Your task to perform on an android device: open device folders in google photos Image 0: 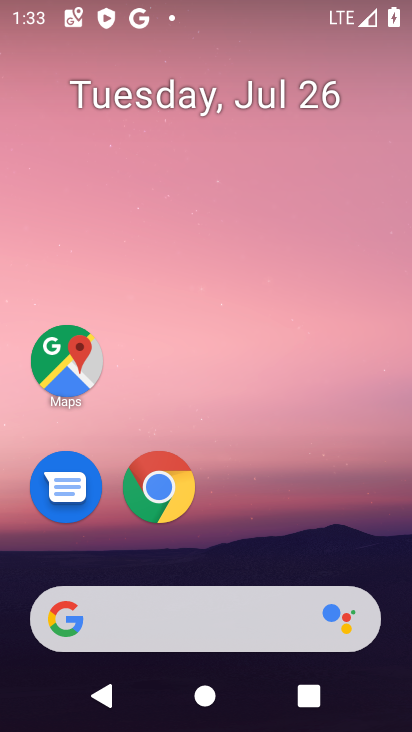
Step 0: drag from (180, 603) to (162, 196)
Your task to perform on an android device: open device folders in google photos Image 1: 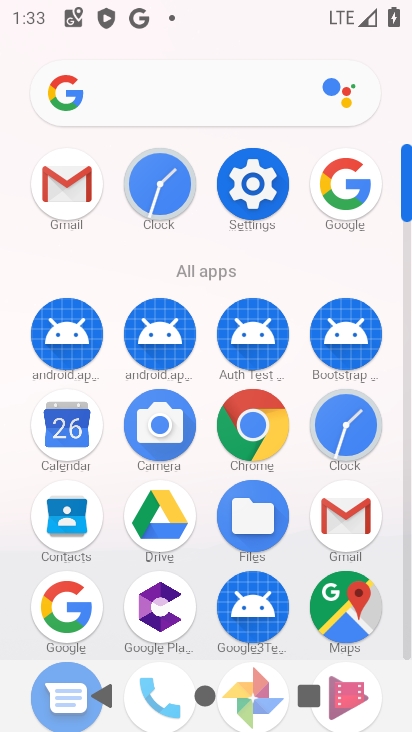
Step 1: drag from (218, 525) to (226, 211)
Your task to perform on an android device: open device folders in google photos Image 2: 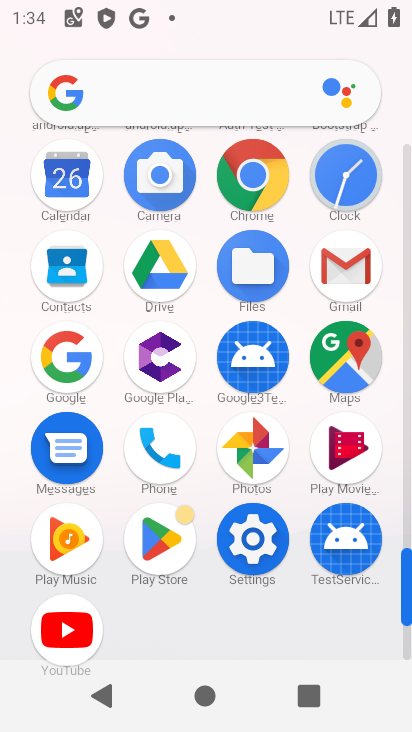
Step 2: click (245, 473)
Your task to perform on an android device: open device folders in google photos Image 3: 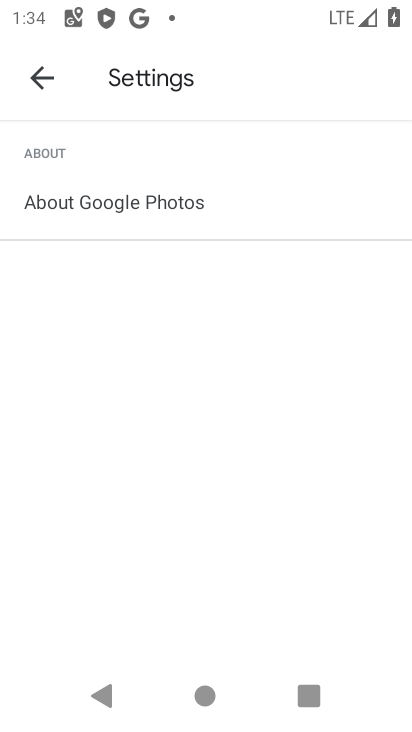
Step 3: click (51, 79)
Your task to perform on an android device: open device folders in google photos Image 4: 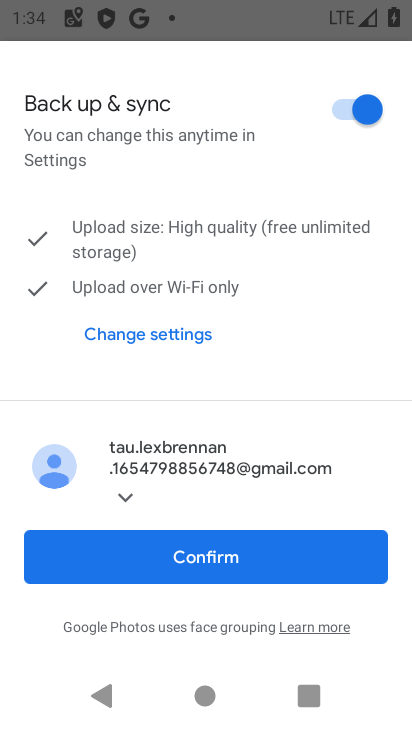
Step 4: click (284, 573)
Your task to perform on an android device: open device folders in google photos Image 5: 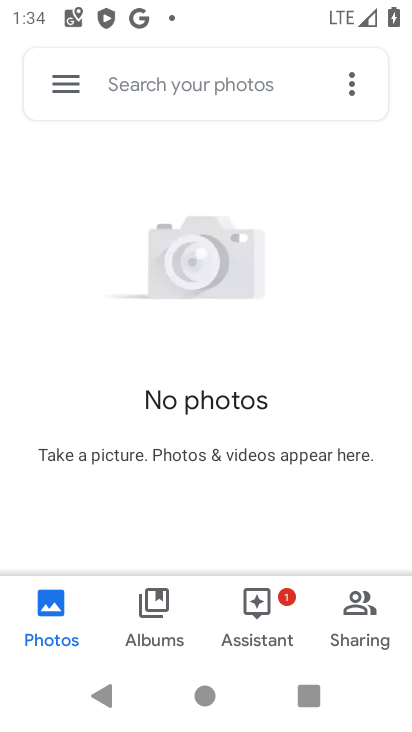
Step 5: click (79, 80)
Your task to perform on an android device: open device folders in google photos Image 6: 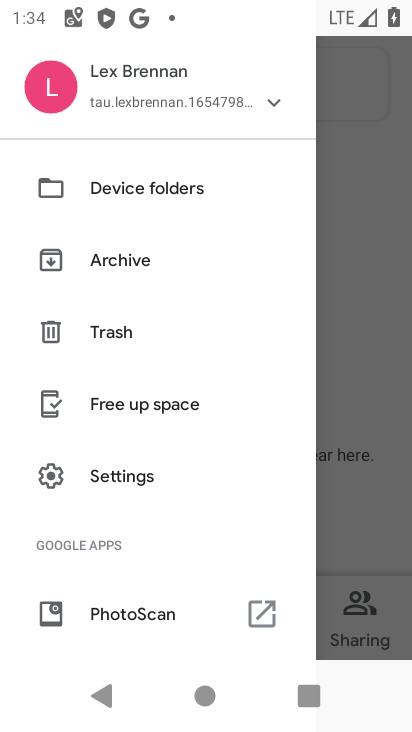
Step 6: click (129, 185)
Your task to perform on an android device: open device folders in google photos Image 7: 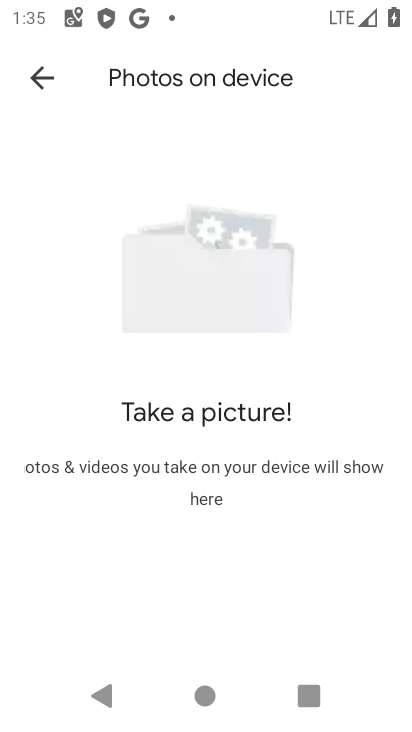
Step 7: click (31, 81)
Your task to perform on an android device: open device folders in google photos Image 8: 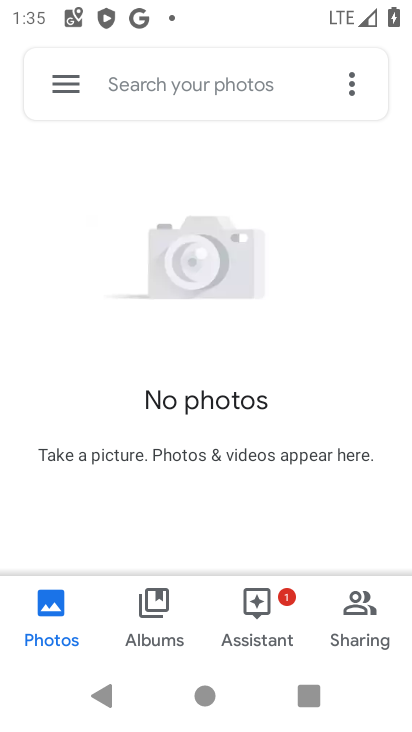
Step 8: task complete